Your task to perform on an android device: delete the emails in spam in the gmail app Image 0: 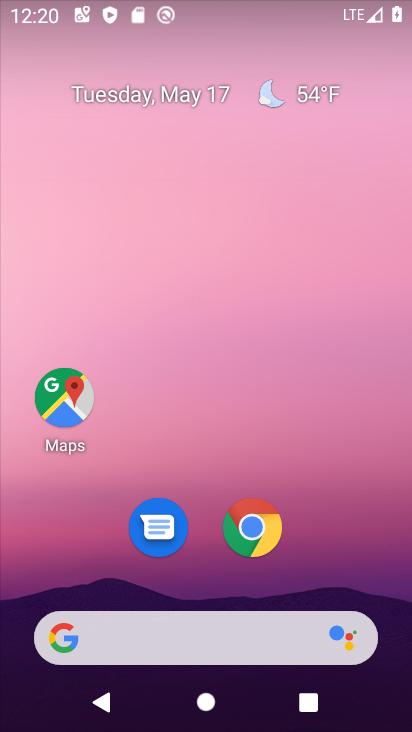
Step 0: drag from (261, 616) to (261, 55)
Your task to perform on an android device: delete the emails in spam in the gmail app Image 1: 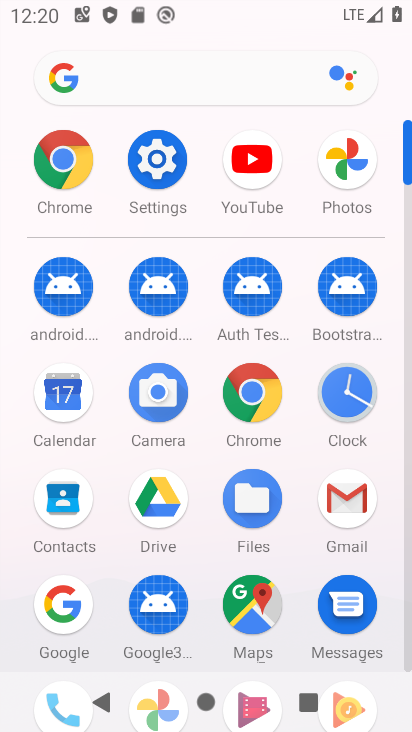
Step 1: click (351, 511)
Your task to perform on an android device: delete the emails in spam in the gmail app Image 2: 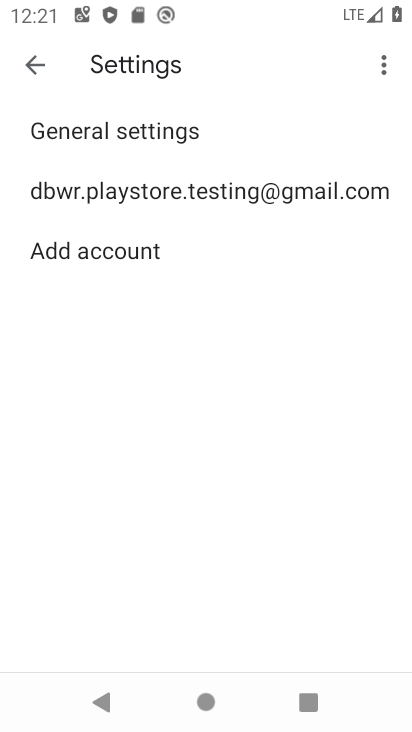
Step 2: click (30, 60)
Your task to perform on an android device: delete the emails in spam in the gmail app Image 3: 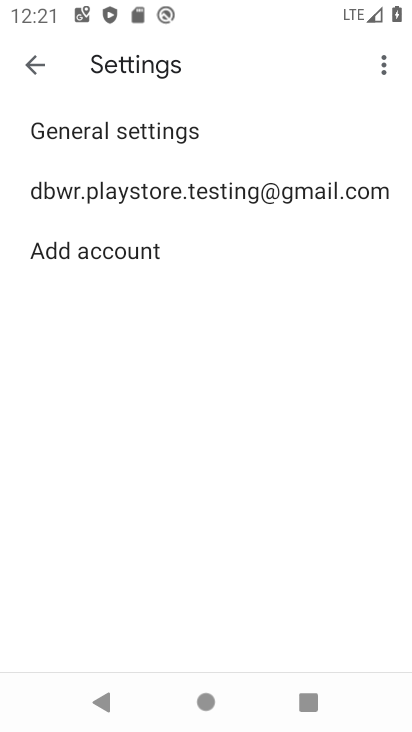
Step 3: click (34, 72)
Your task to perform on an android device: delete the emails in spam in the gmail app Image 4: 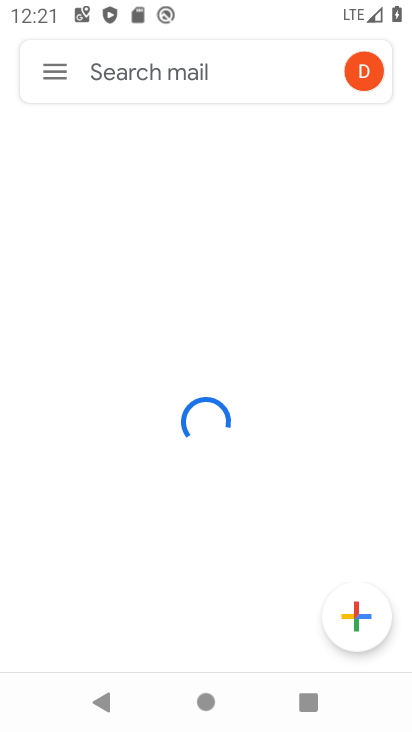
Step 4: click (39, 83)
Your task to perform on an android device: delete the emails in spam in the gmail app Image 5: 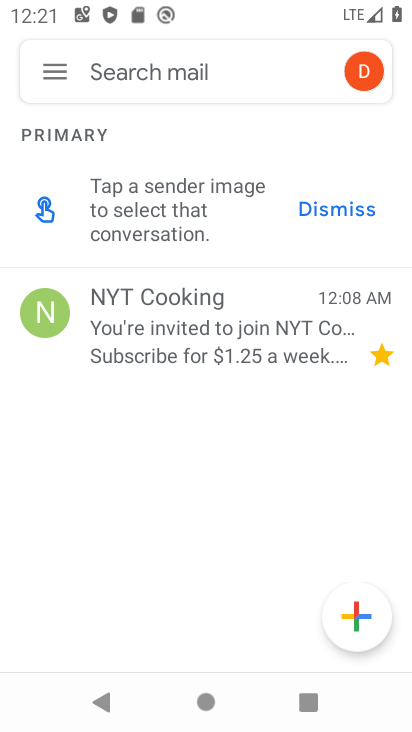
Step 5: click (41, 83)
Your task to perform on an android device: delete the emails in spam in the gmail app Image 6: 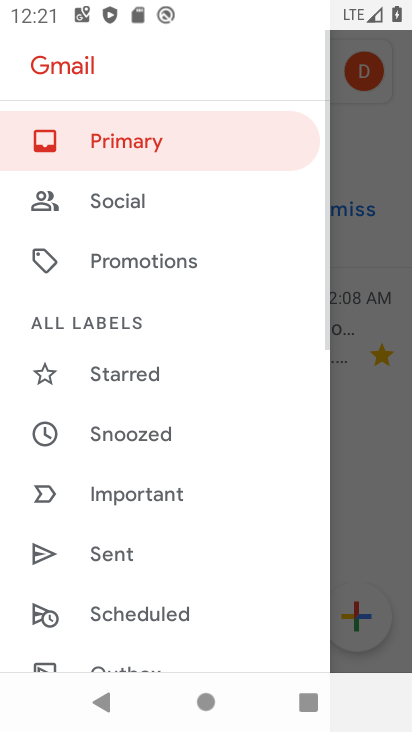
Step 6: drag from (199, 547) to (237, 338)
Your task to perform on an android device: delete the emails in spam in the gmail app Image 7: 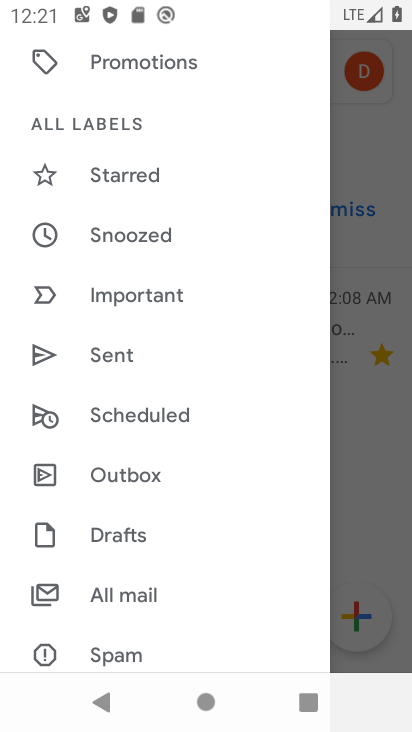
Step 7: drag from (131, 597) to (157, 484)
Your task to perform on an android device: delete the emails in spam in the gmail app Image 8: 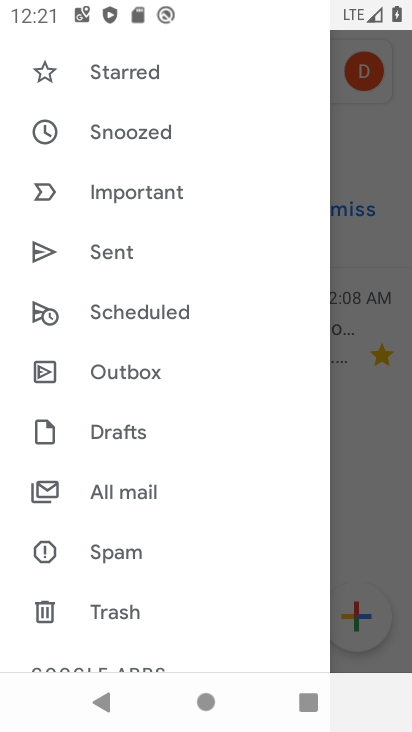
Step 8: click (114, 557)
Your task to perform on an android device: delete the emails in spam in the gmail app Image 9: 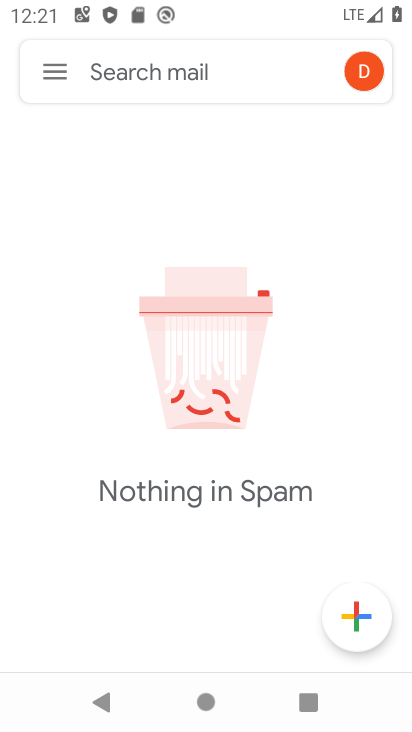
Step 9: task complete